Your task to perform on an android device: toggle airplane mode Image 0: 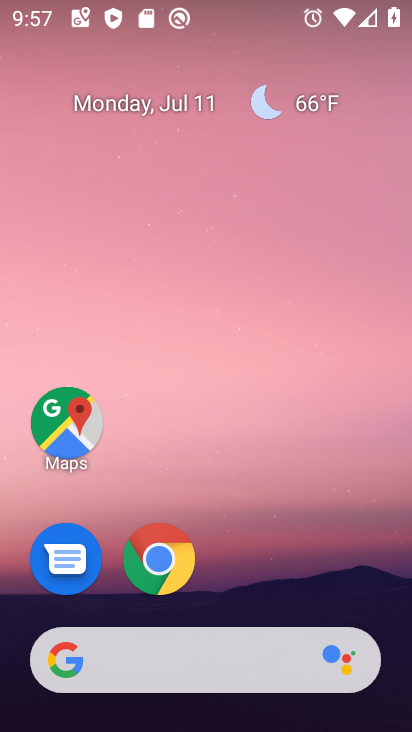
Step 0: drag from (363, 588) to (368, 212)
Your task to perform on an android device: toggle airplane mode Image 1: 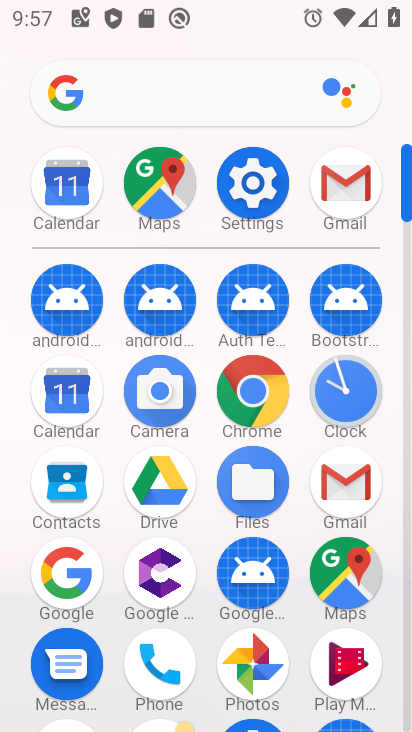
Step 1: click (261, 183)
Your task to perform on an android device: toggle airplane mode Image 2: 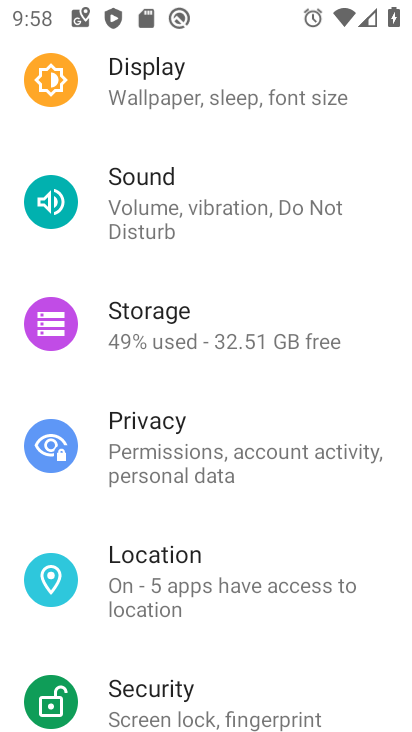
Step 2: drag from (317, 148) to (319, 233)
Your task to perform on an android device: toggle airplane mode Image 3: 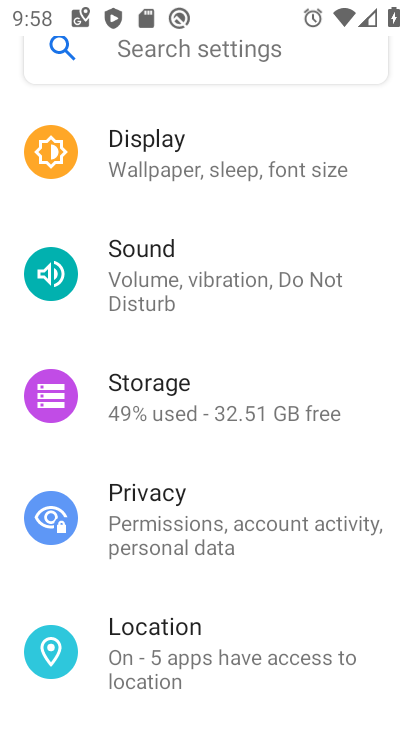
Step 3: drag from (366, 163) to (375, 280)
Your task to perform on an android device: toggle airplane mode Image 4: 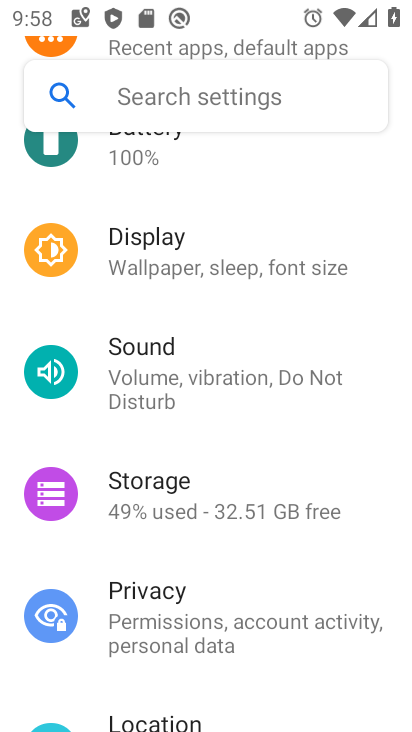
Step 4: drag from (361, 216) to (362, 341)
Your task to perform on an android device: toggle airplane mode Image 5: 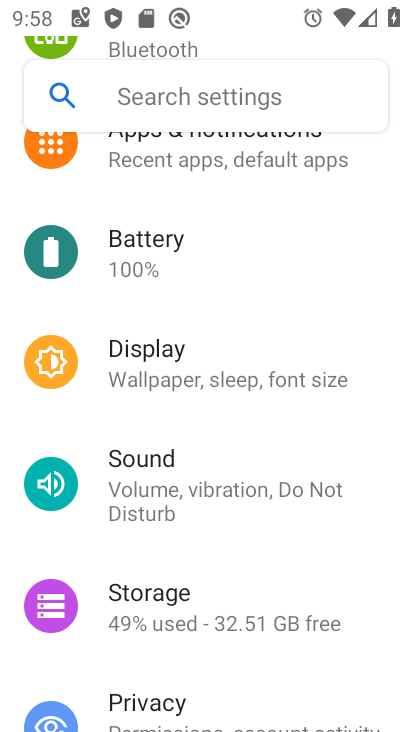
Step 5: drag from (353, 227) to (354, 340)
Your task to perform on an android device: toggle airplane mode Image 6: 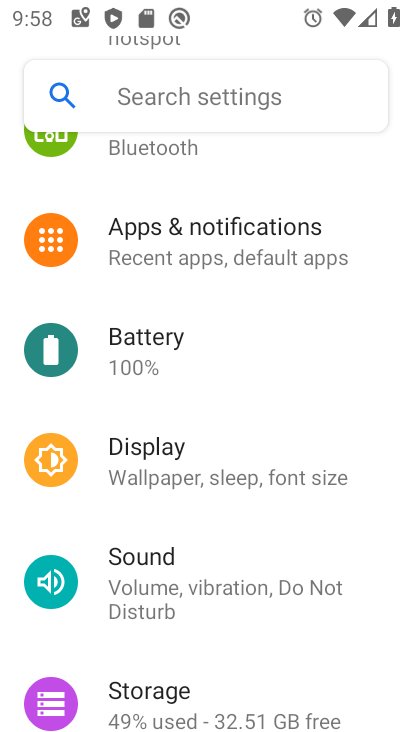
Step 6: drag from (354, 229) to (361, 336)
Your task to perform on an android device: toggle airplane mode Image 7: 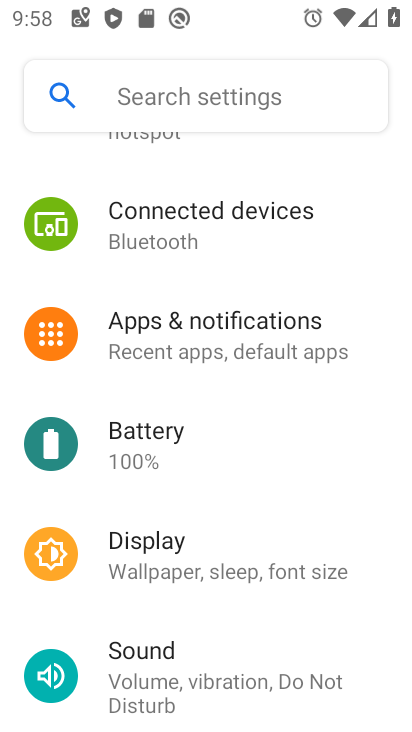
Step 7: drag from (363, 212) to (361, 314)
Your task to perform on an android device: toggle airplane mode Image 8: 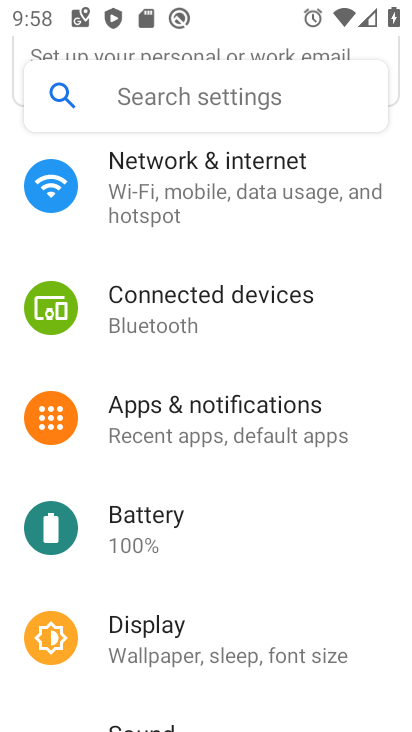
Step 8: click (331, 180)
Your task to perform on an android device: toggle airplane mode Image 9: 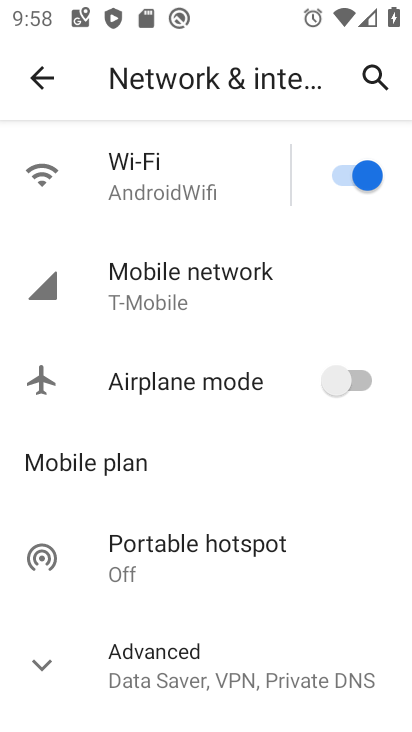
Step 9: click (339, 374)
Your task to perform on an android device: toggle airplane mode Image 10: 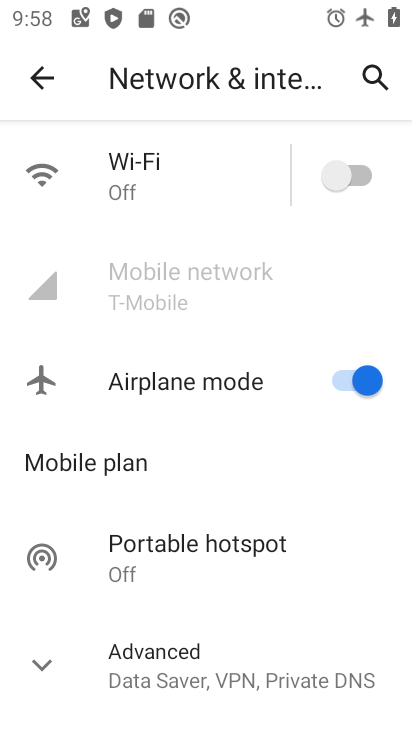
Step 10: task complete